Your task to perform on an android device: check google app version Image 0: 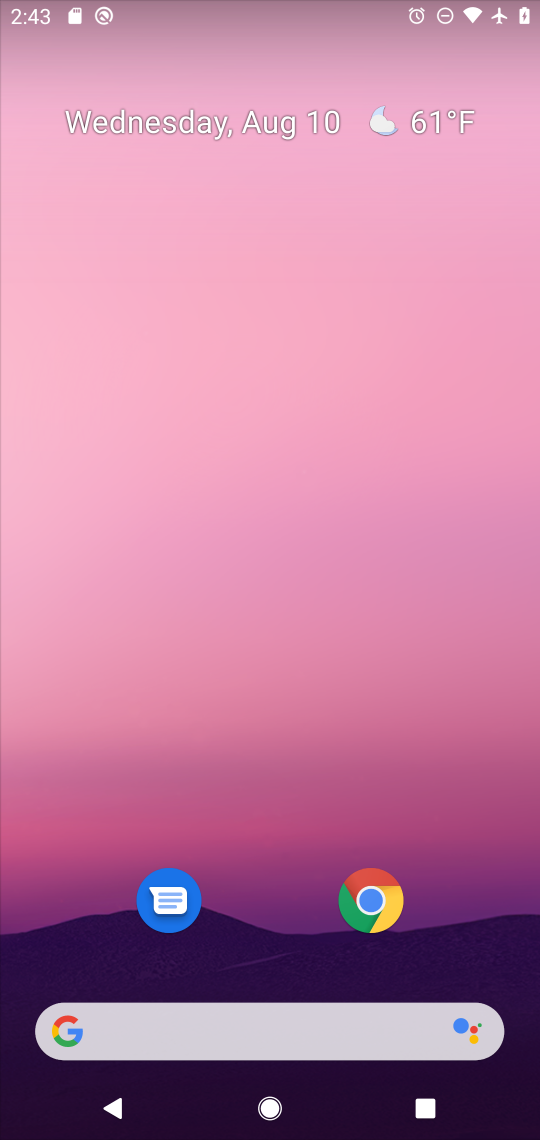
Step 0: click (263, 1041)
Your task to perform on an android device: check google app version Image 1: 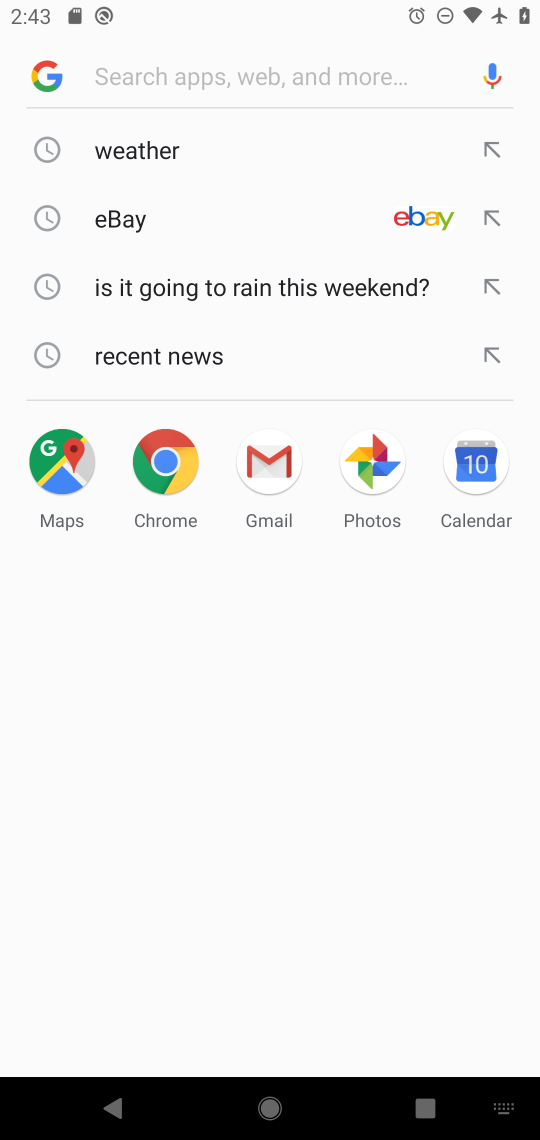
Step 1: click (39, 64)
Your task to perform on an android device: check google app version Image 2: 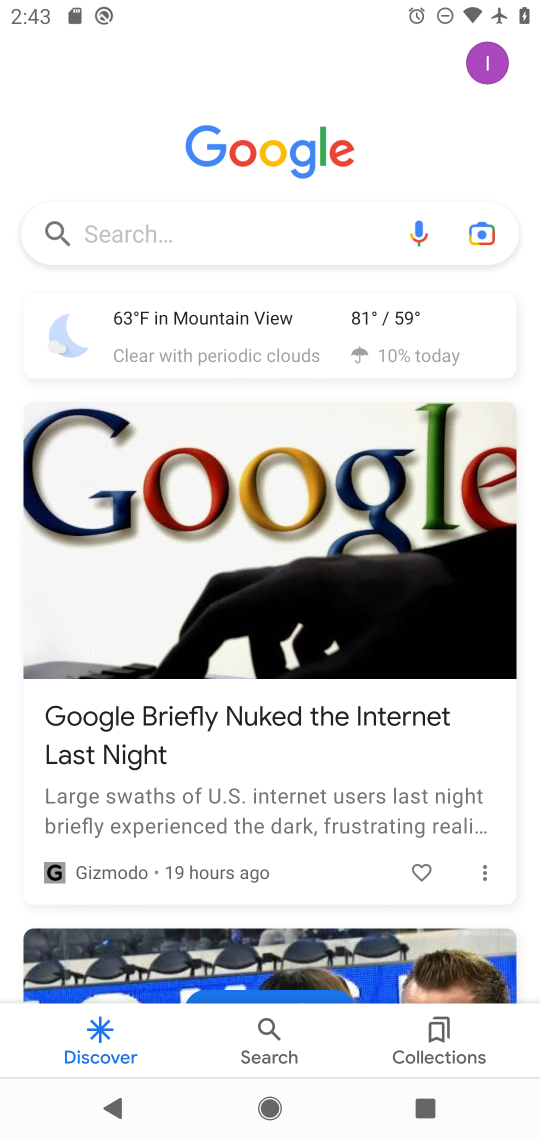
Step 2: click (493, 52)
Your task to perform on an android device: check google app version Image 3: 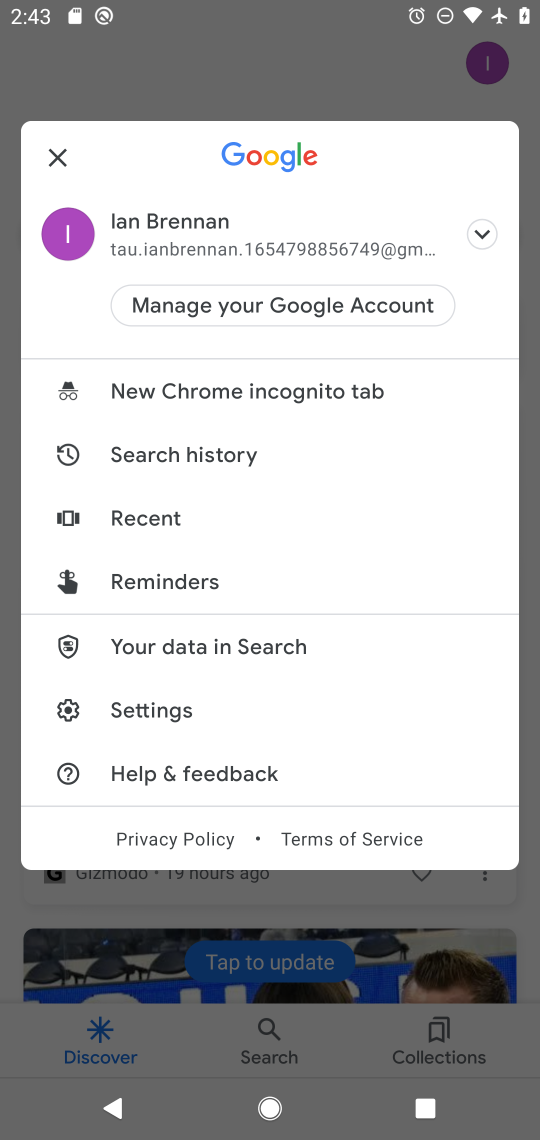
Step 3: click (175, 713)
Your task to perform on an android device: check google app version Image 4: 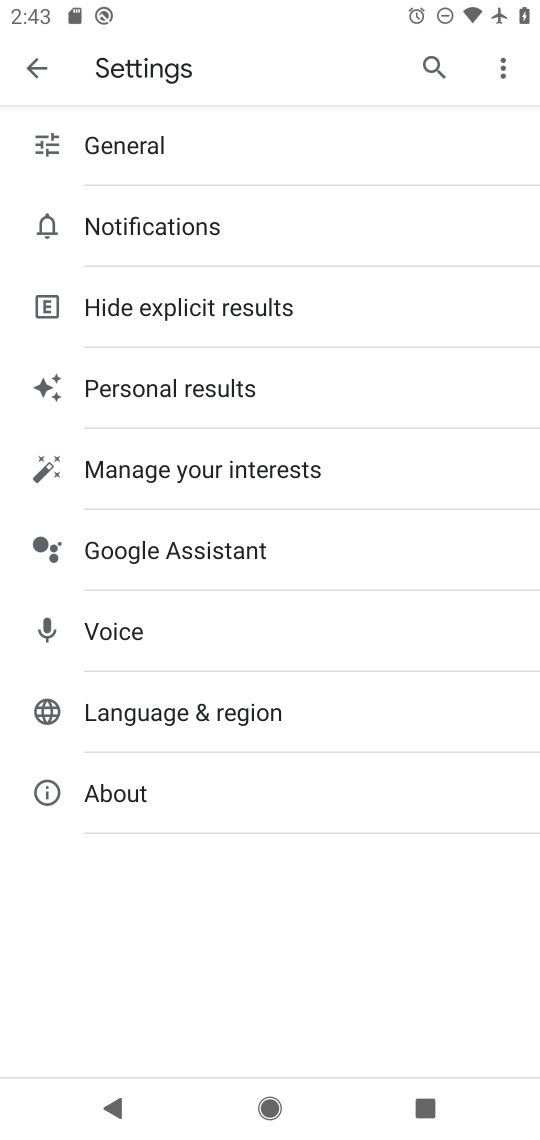
Step 4: click (137, 802)
Your task to perform on an android device: check google app version Image 5: 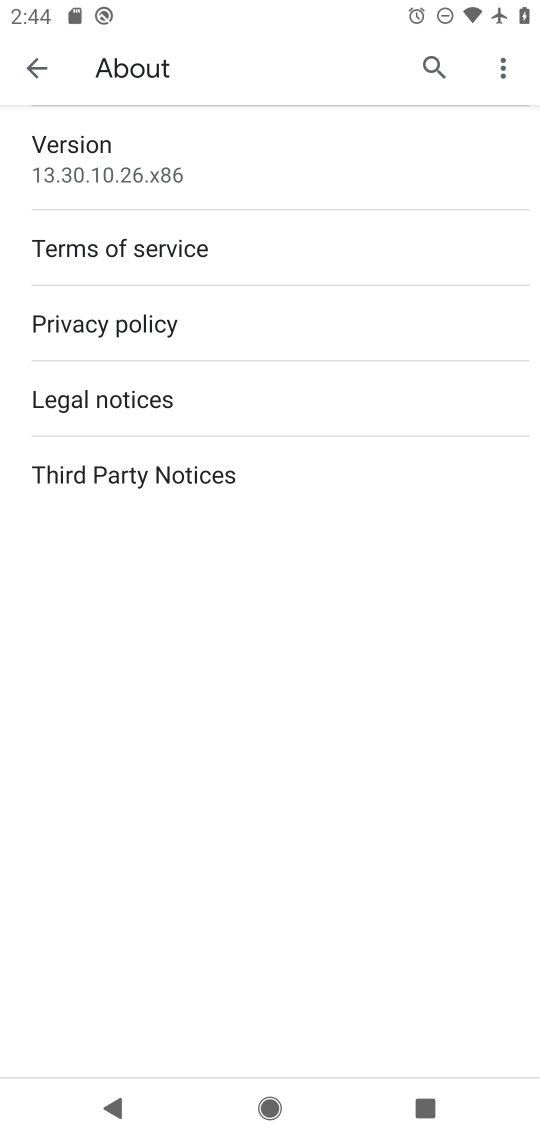
Step 5: task complete